Your task to perform on an android device: Clear the cart on walmart. Image 0: 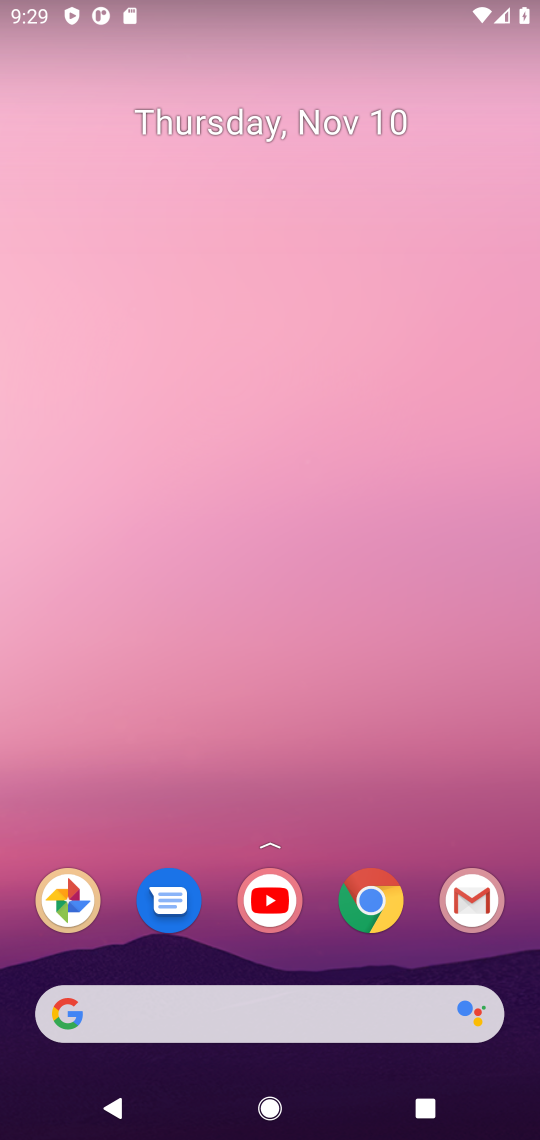
Step 0: press home button
Your task to perform on an android device: Clear the cart on walmart. Image 1: 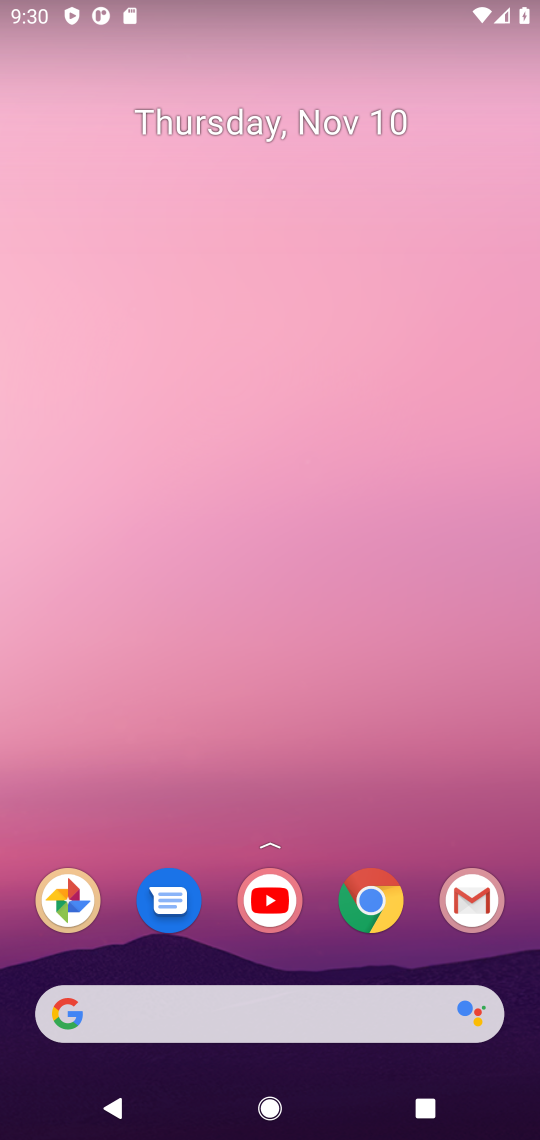
Step 1: click (363, 905)
Your task to perform on an android device: Clear the cart on walmart. Image 2: 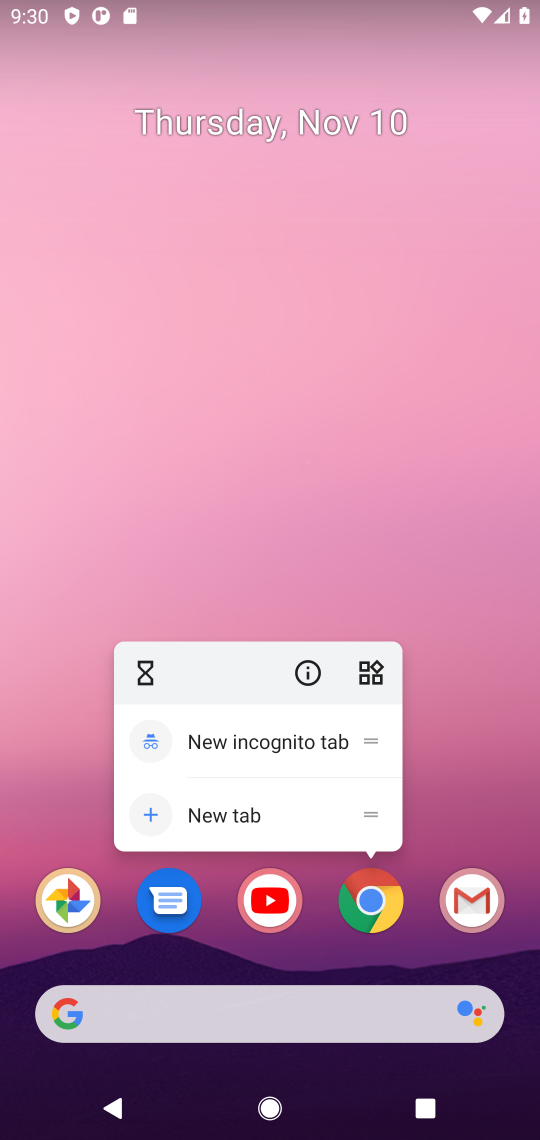
Step 2: click (363, 905)
Your task to perform on an android device: Clear the cart on walmart. Image 3: 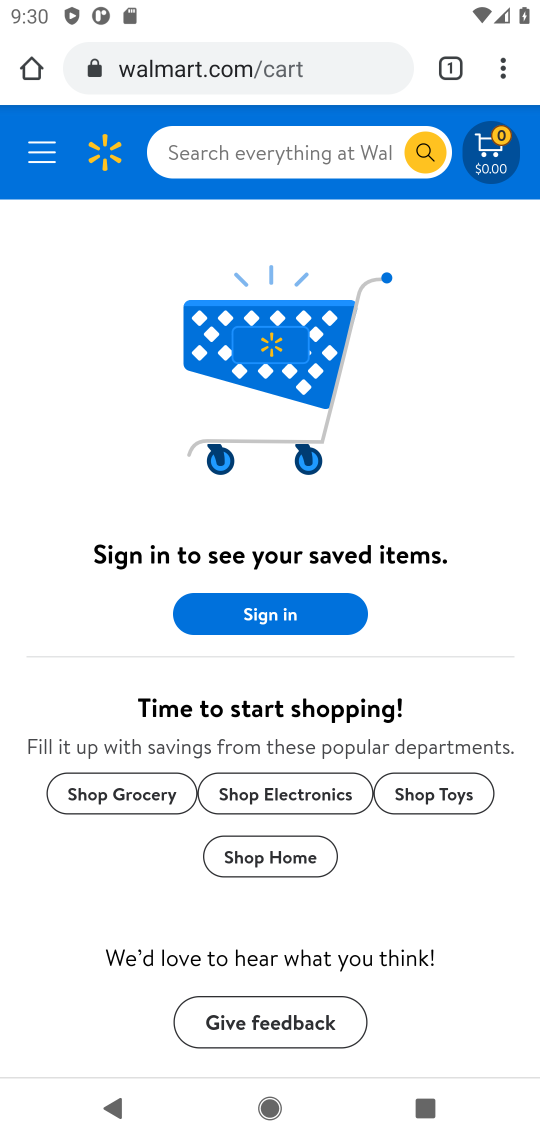
Step 3: click (497, 150)
Your task to perform on an android device: Clear the cart on walmart. Image 4: 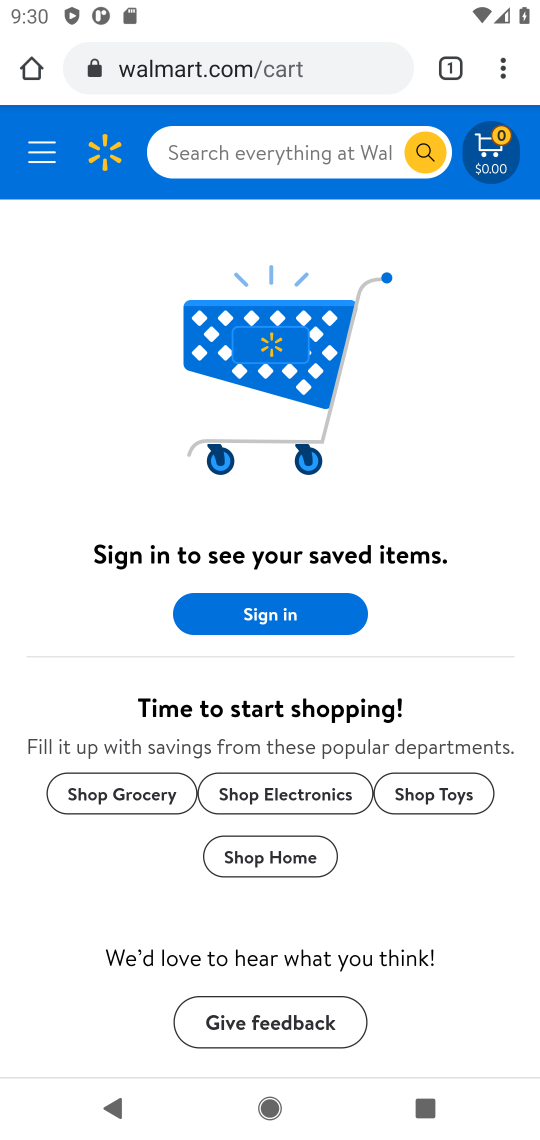
Step 4: click (492, 147)
Your task to perform on an android device: Clear the cart on walmart. Image 5: 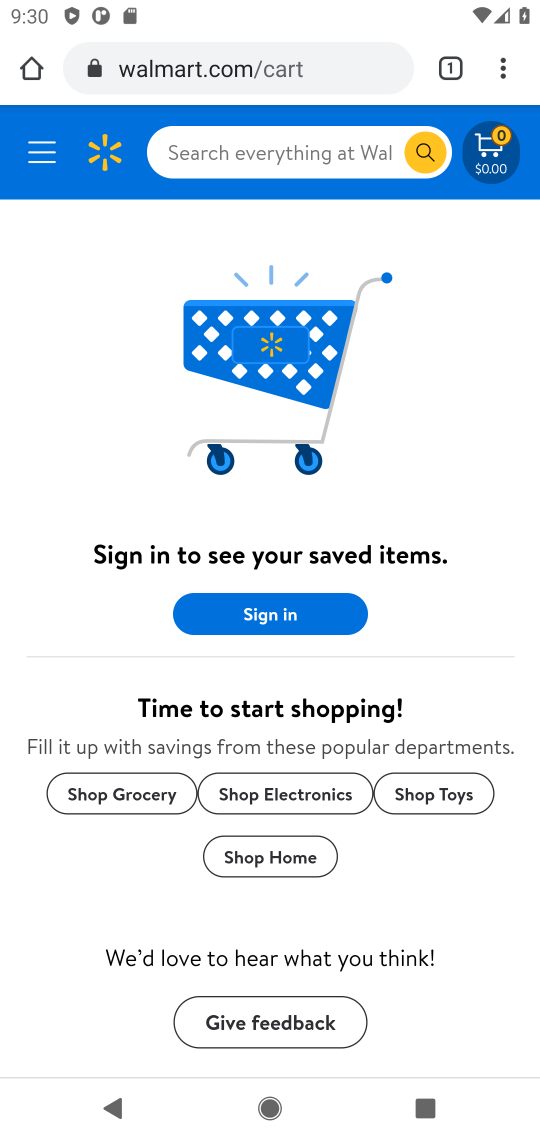
Step 5: task complete